Your task to perform on an android device: What's the weather going to be this weekend? Image 0: 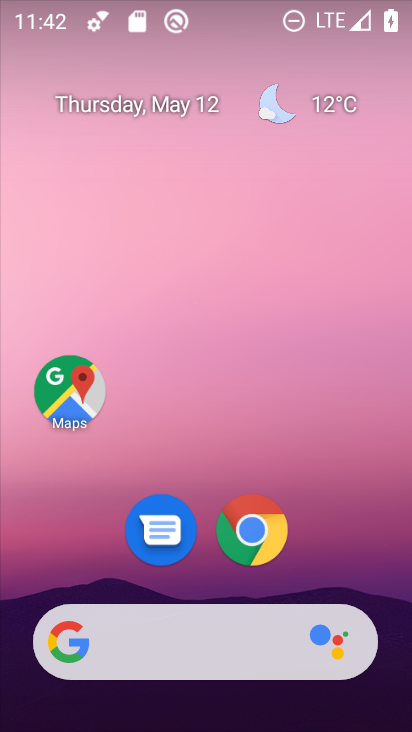
Step 0: click (329, 104)
Your task to perform on an android device: What's the weather going to be this weekend? Image 1: 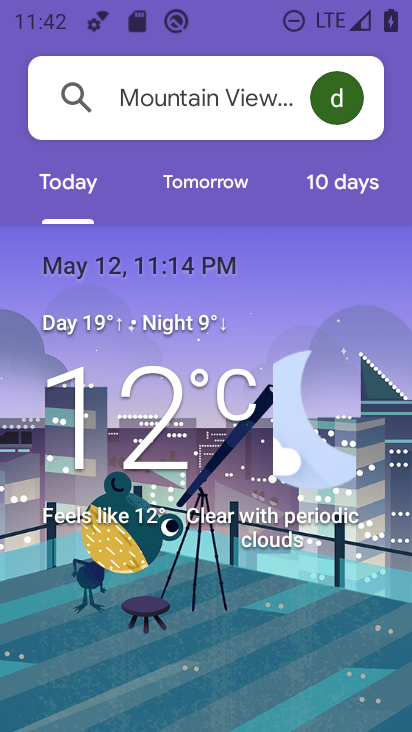
Step 1: click (341, 187)
Your task to perform on an android device: What's the weather going to be this weekend? Image 2: 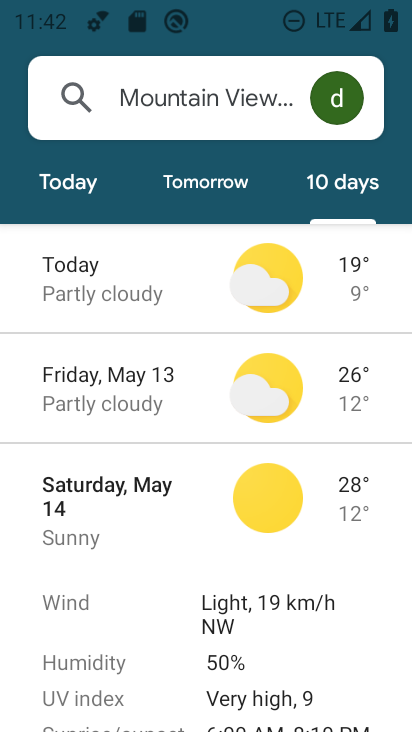
Step 2: task complete